Your task to perform on an android device: Open the phone app and click the voicemail tab. Image 0: 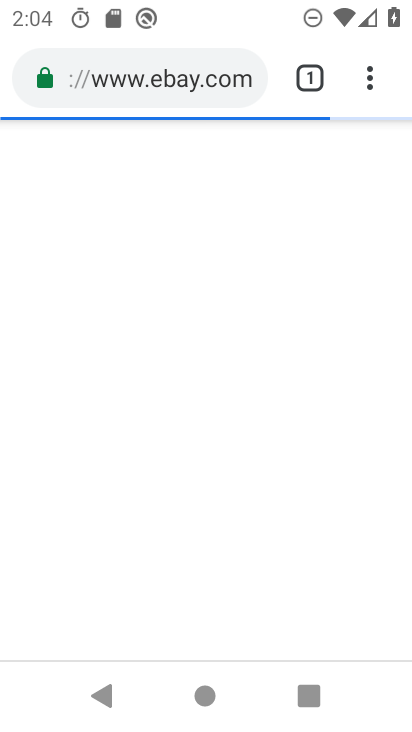
Step 0: press home button
Your task to perform on an android device: Open the phone app and click the voicemail tab. Image 1: 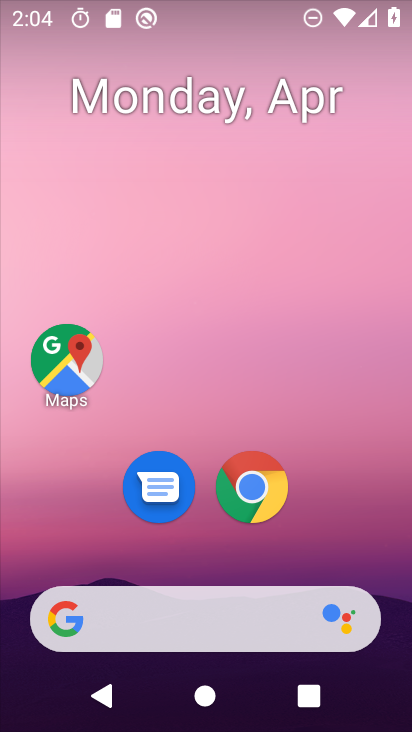
Step 1: drag from (249, 662) to (242, 155)
Your task to perform on an android device: Open the phone app and click the voicemail tab. Image 2: 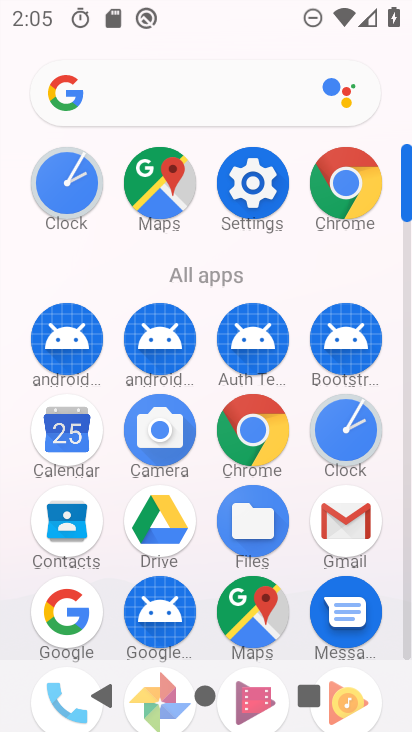
Step 2: drag from (113, 485) to (139, 282)
Your task to perform on an android device: Open the phone app and click the voicemail tab. Image 3: 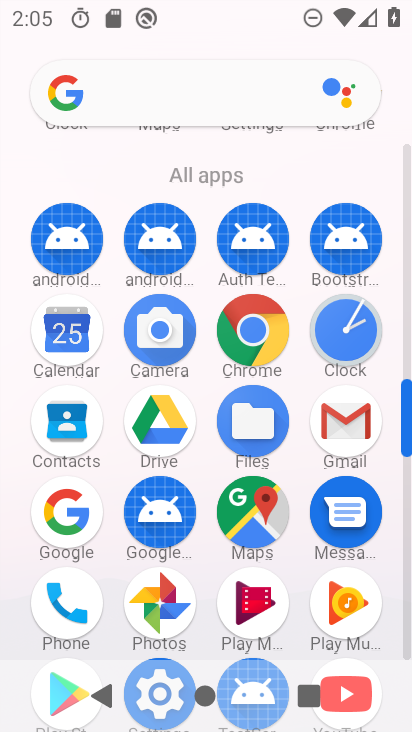
Step 3: click (59, 595)
Your task to perform on an android device: Open the phone app and click the voicemail tab. Image 4: 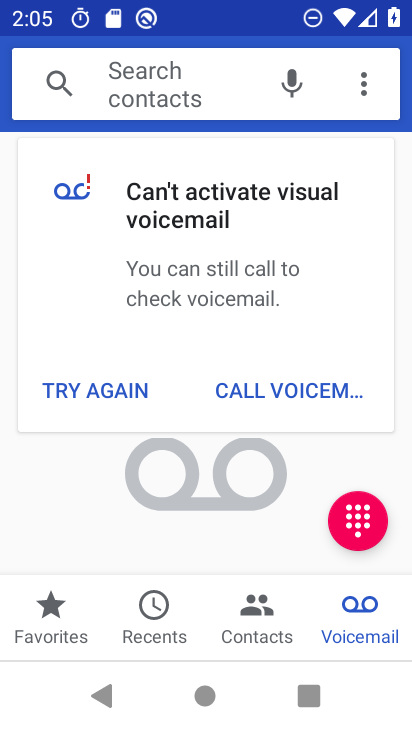
Step 4: click (365, 604)
Your task to perform on an android device: Open the phone app and click the voicemail tab. Image 5: 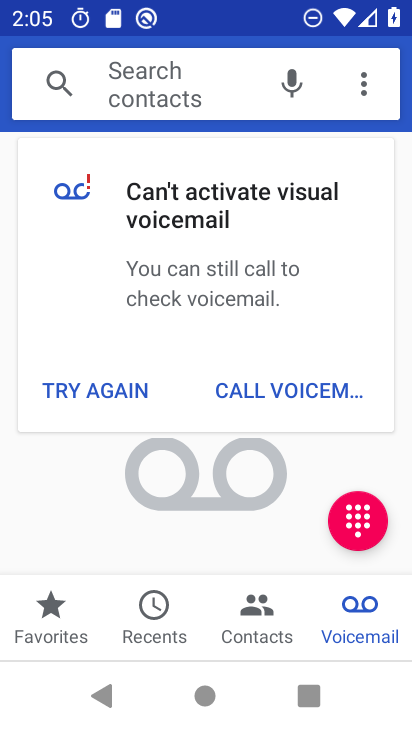
Step 5: task complete